Your task to perform on an android device: Go to Yahoo.com Image 0: 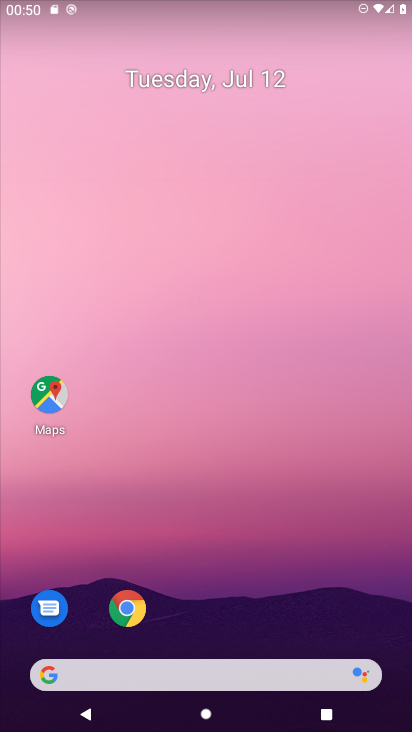
Step 0: drag from (168, 649) to (99, 62)
Your task to perform on an android device: Go to Yahoo.com Image 1: 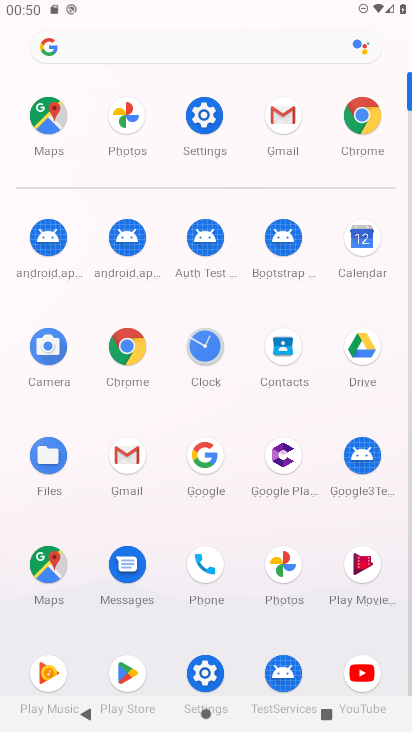
Step 1: click (355, 122)
Your task to perform on an android device: Go to Yahoo.com Image 2: 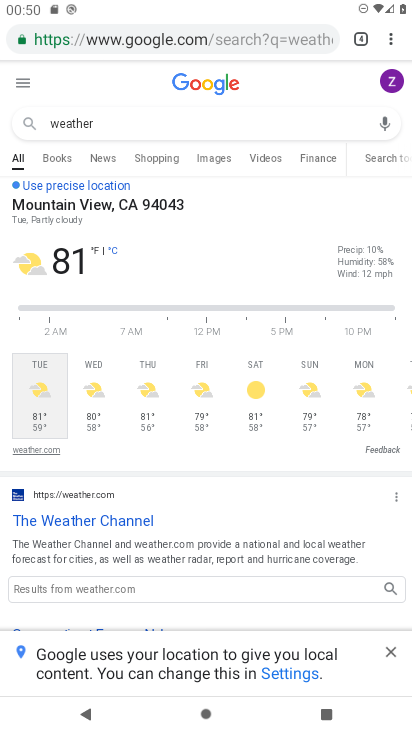
Step 2: click (360, 40)
Your task to perform on an android device: Go to Yahoo.com Image 3: 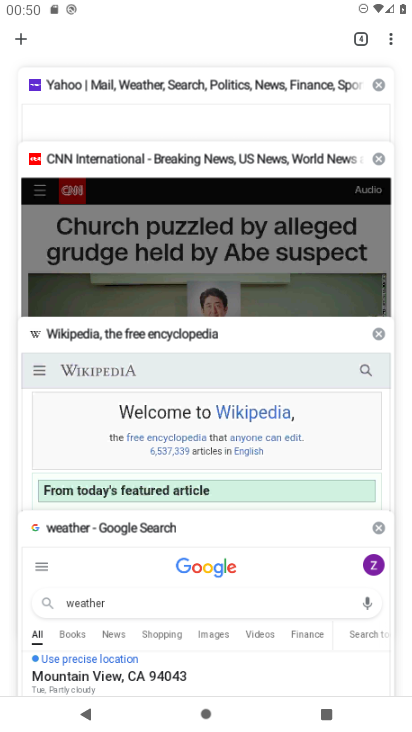
Step 3: click (61, 103)
Your task to perform on an android device: Go to Yahoo.com Image 4: 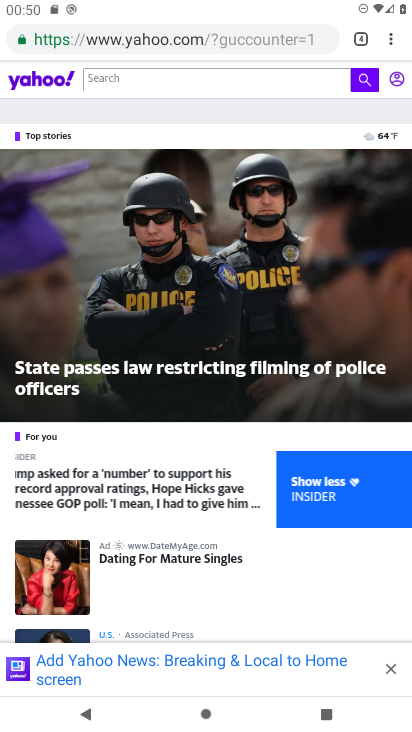
Step 4: task complete